Your task to perform on an android device: Open the phone app and click the voicemail tab. Image 0: 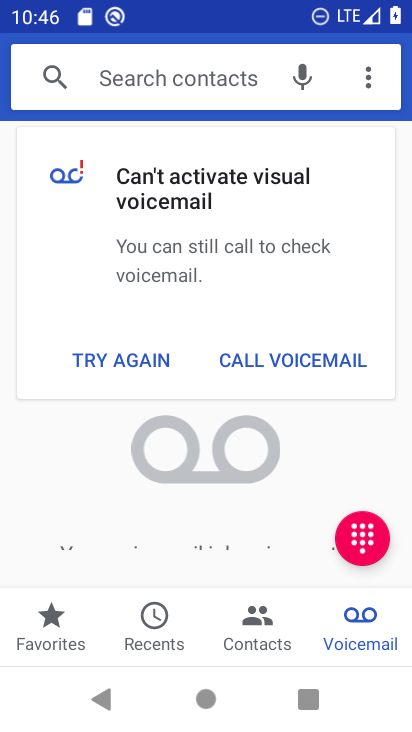
Step 0: click (374, 632)
Your task to perform on an android device: Open the phone app and click the voicemail tab. Image 1: 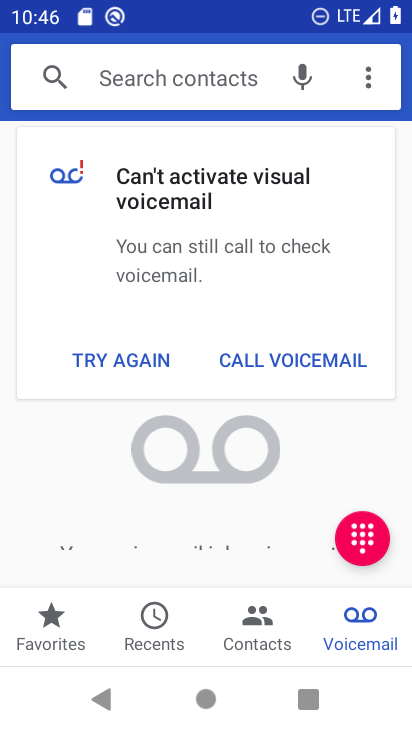
Step 1: task complete